Your task to perform on an android device: Clear the cart on costco. Search for "macbook pro 15 inch" on costco, select the first entry, add it to the cart, then select checkout. Image 0: 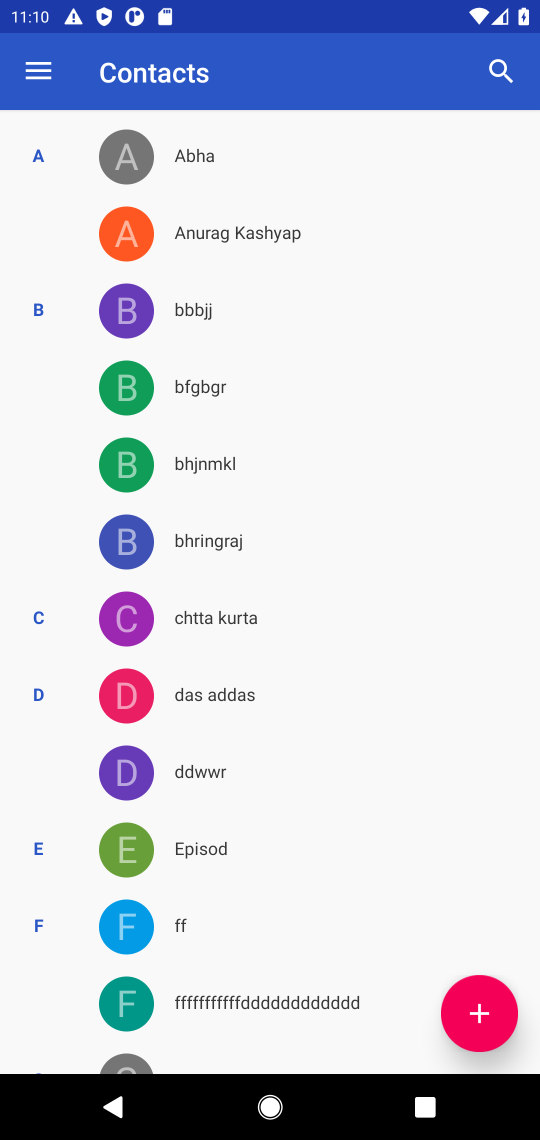
Step 0: press home button
Your task to perform on an android device: Clear the cart on costco. Search for "macbook pro 15 inch" on costco, select the first entry, add it to the cart, then select checkout. Image 1: 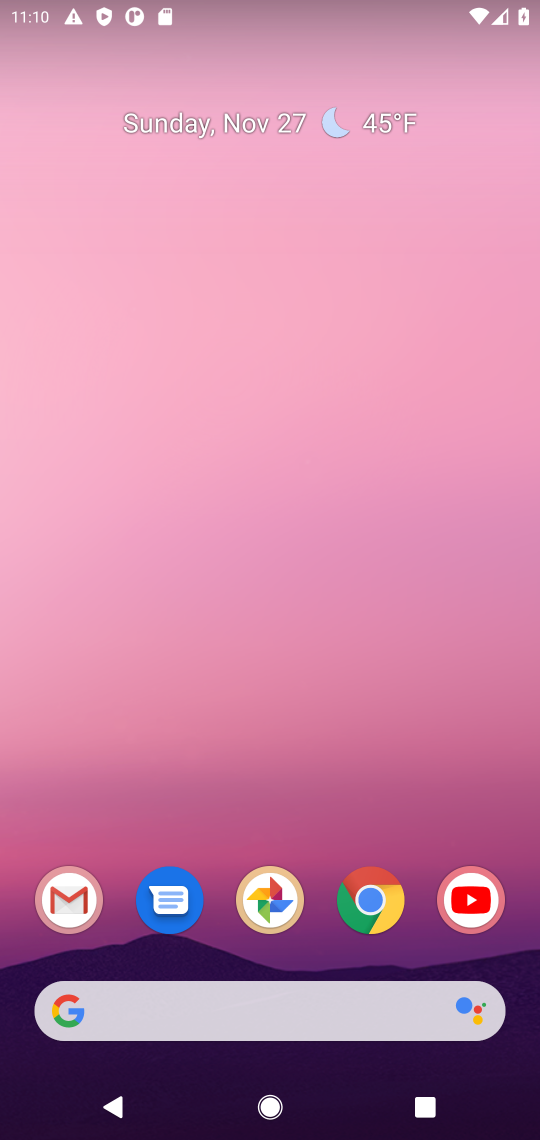
Step 1: click (377, 905)
Your task to perform on an android device: Clear the cart on costco. Search for "macbook pro 15 inch" on costco, select the first entry, add it to the cart, then select checkout. Image 2: 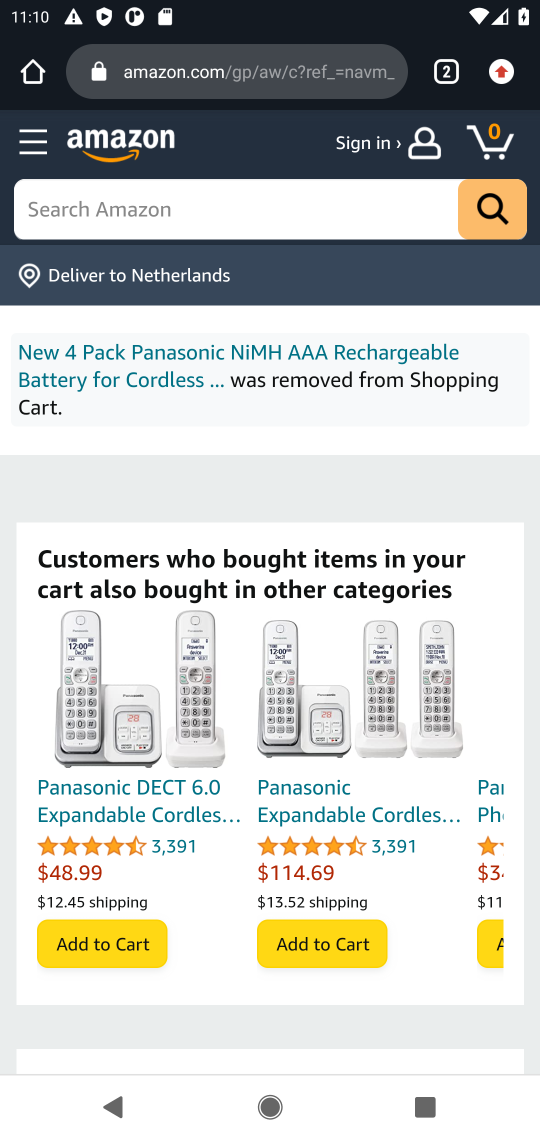
Step 2: click (225, 65)
Your task to perform on an android device: Clear the cart on costco. Search for "macbook pro 15 inch" on costco, select the first entry, add it to the cart, then select checkout. Image 3: 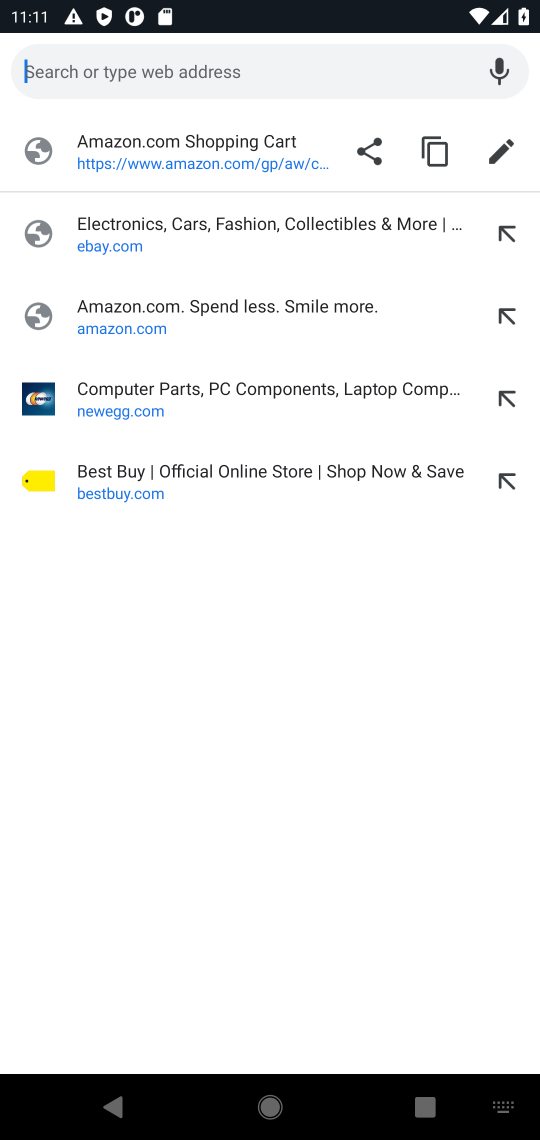
Step 3: type "costco.com"
Your task to perform on an android device: Clear the cart on costco. Search for "macbook pro 15 inch" on costco, select the first entry, add it to the cart, then select checkout. Image 4: 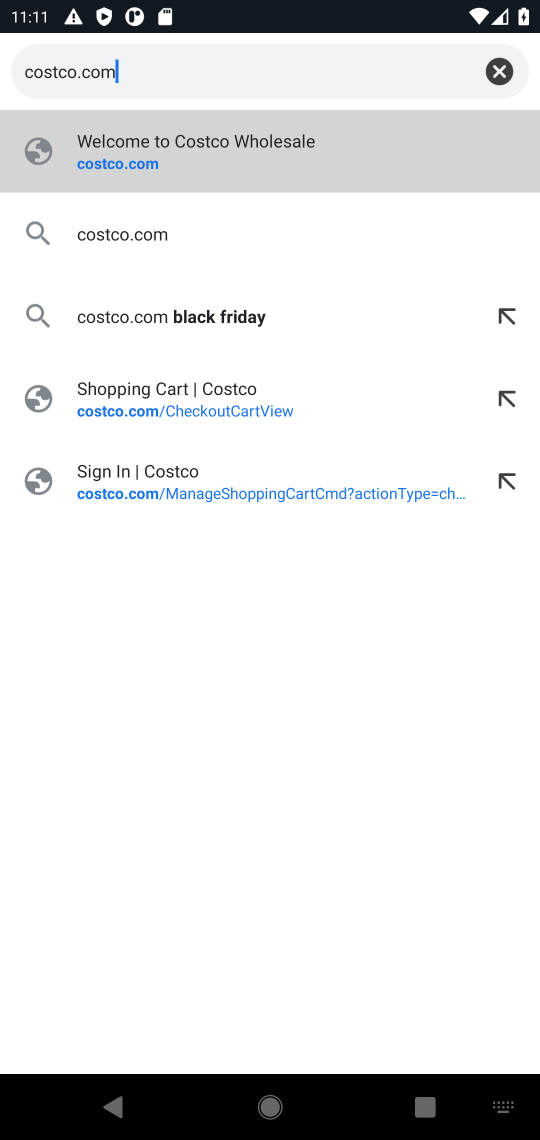
Step 4: click (131, 166)
Your task to perform on an android device: Clear the cart on costco. Search for "macbook pro 15 inch" on costco, select the first entry, add it to the cart, then select checkout. Image 5: 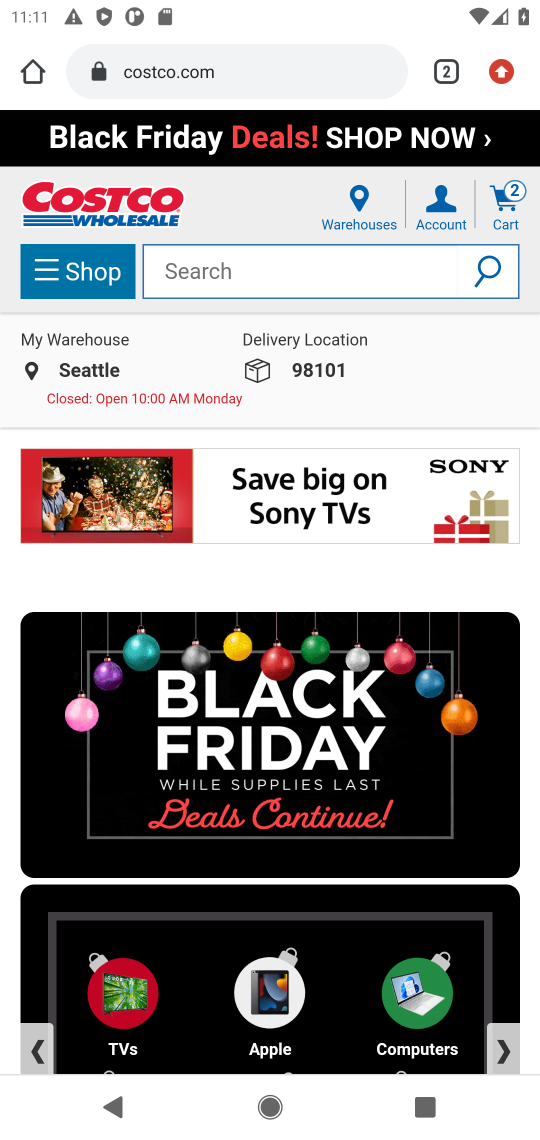
Step 5: click (509, 203)
Your task to perform on an android device: Clear the cart on costco. Search for "macbook pro 15 inch" on costco, select the first entry, add it to the cart, then select checkout. Image 6: 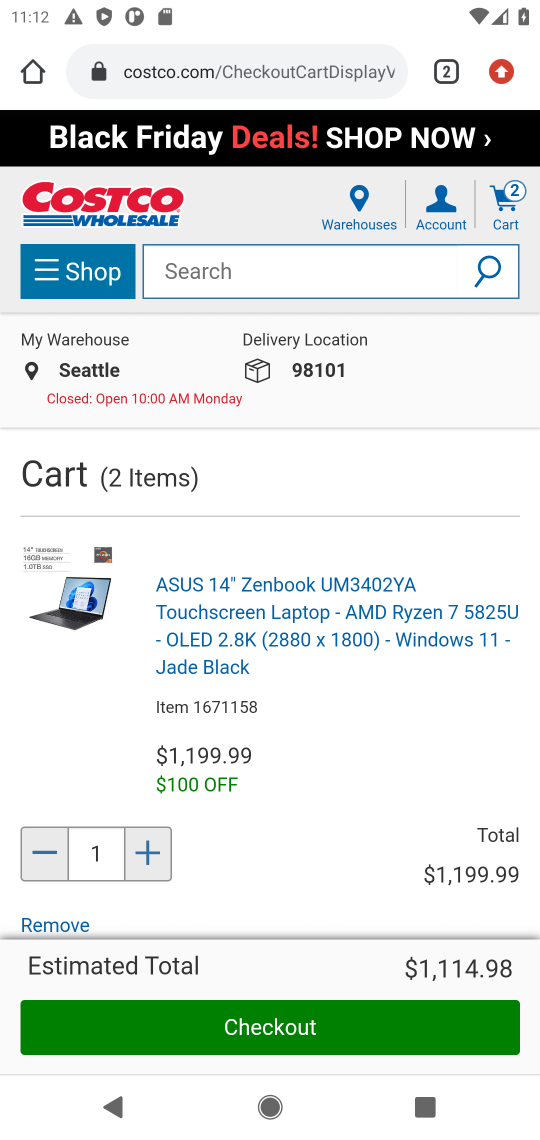
Step 6: drag from (308, 767) to (332, 497)
Your task to perform on an android device: Clear the cart on costco. Search for "macbook pro 15 inch" on costco, select the first entry, add it to the cart, then select checkout. Image 7: 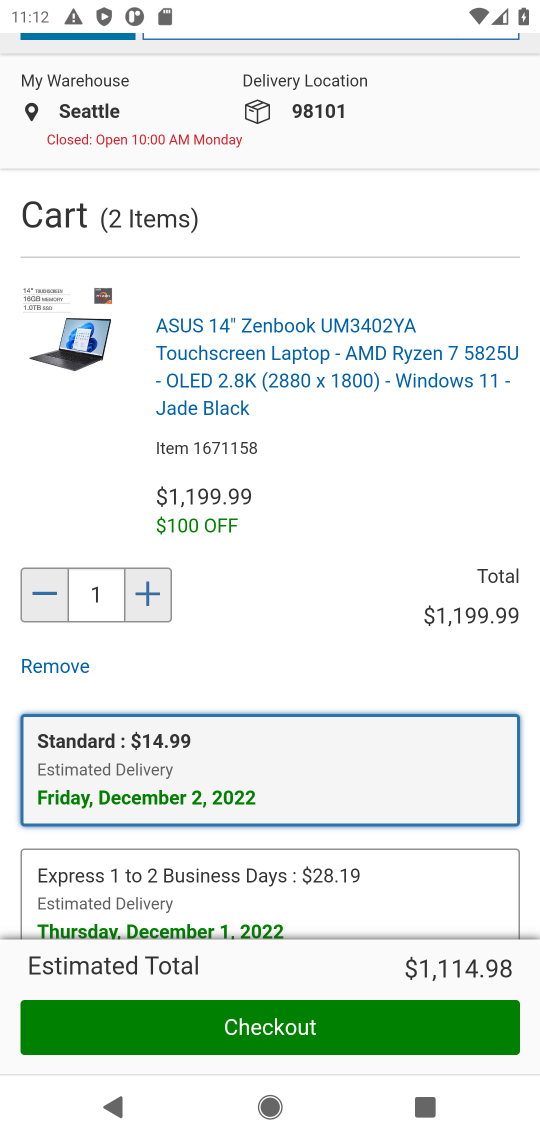
Step 7: drag from (285, 698) to (324, 372)
Your task to perform on an android device: Clear the cart on costco. Search for "macbook pro 15 inch" on costco, select the first entry, add it to the cart, then select checkout. Image 8: 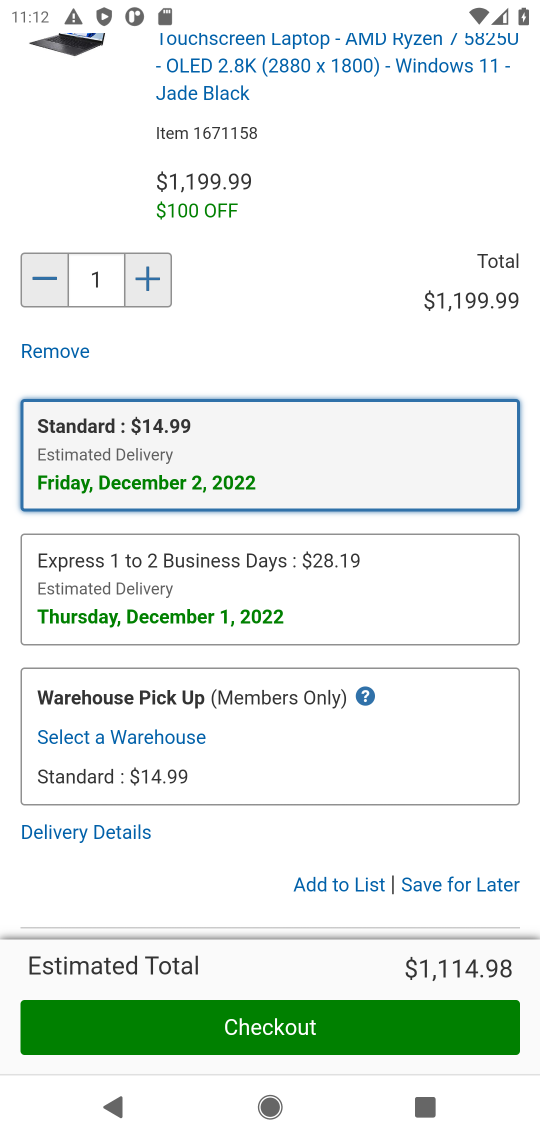
Step 8: click (438, 881)
Your task to perform on an android device: Clear the cart on costco. Search for "macbook pro 15 inch" on costco, select the first entry, add it to the cart, then select checkout. Image 9: 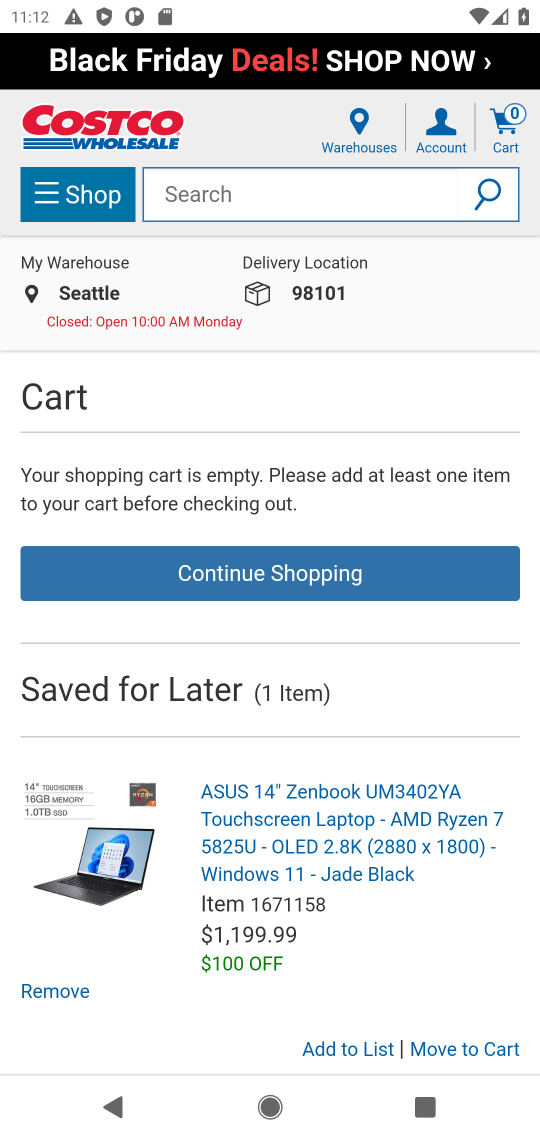
Step 9: click (214, 200)
Your task to perform on an android device: Clear the cart on costco. Search for "macbook pro 15 inch" on costco, select the first entry, add it to the cart, then select checkout. Image 10: 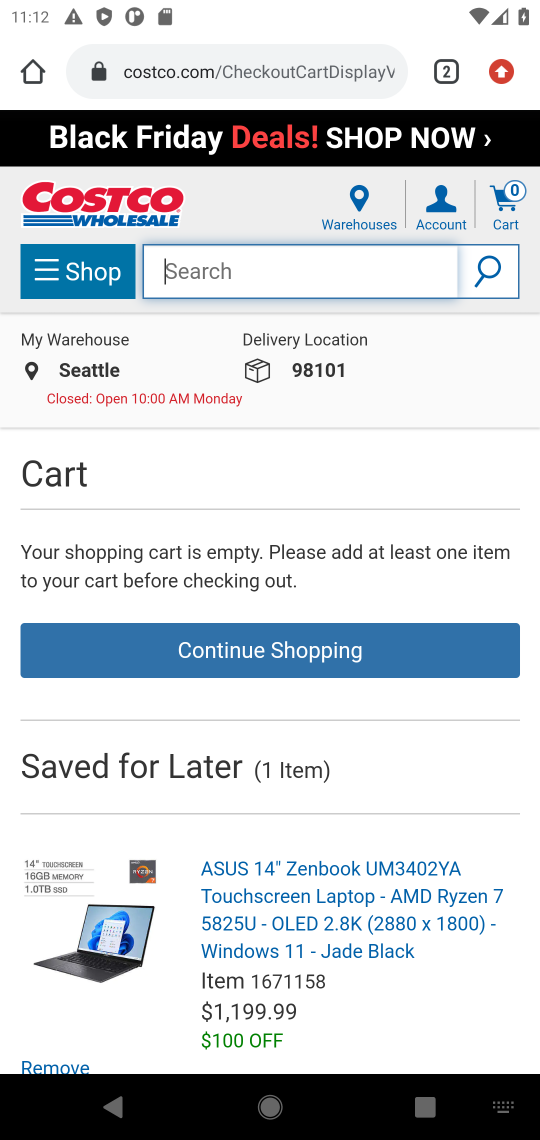
Step 10: type "macbook pro 15 inch"
Your task to perform on an android device: Clear the cart on costco. Search for "macbook pro 15 inch" on costco, select the first entry, add it to the cart, then select checkout. Image 11: 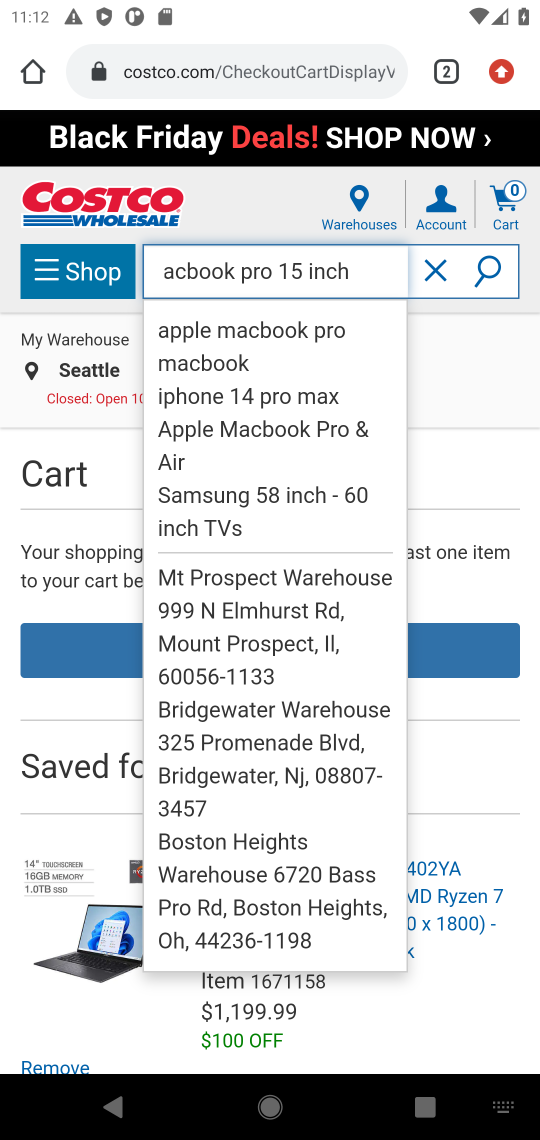
Step 11: click (488, 280)
Your task to perform on an android device: Clear the cart on costco. Search for "macbook pro 15 inch" on costco, select the first entry, add it to the cart, then select checkout. Image 12: 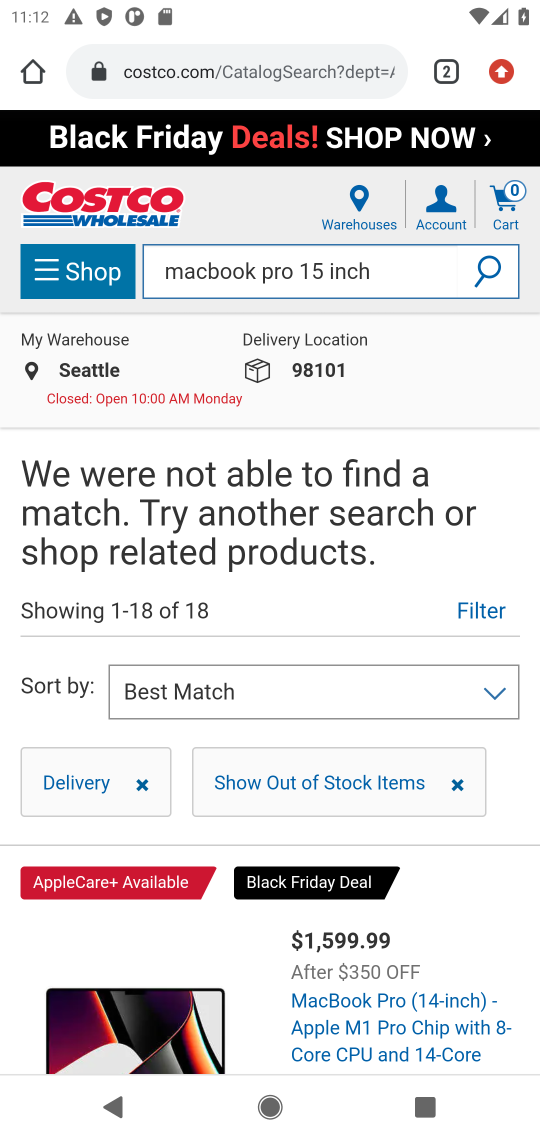
Step 12: task complete